Your task to perform on an android device: Open Android settings Image 0: 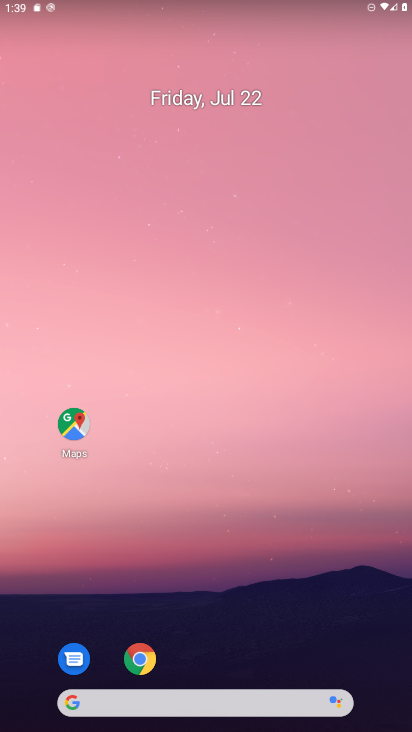
Step 0: drag from (184, 698) to (237, 1)
Your task to perform on an android device: Open Android settings Image 1: 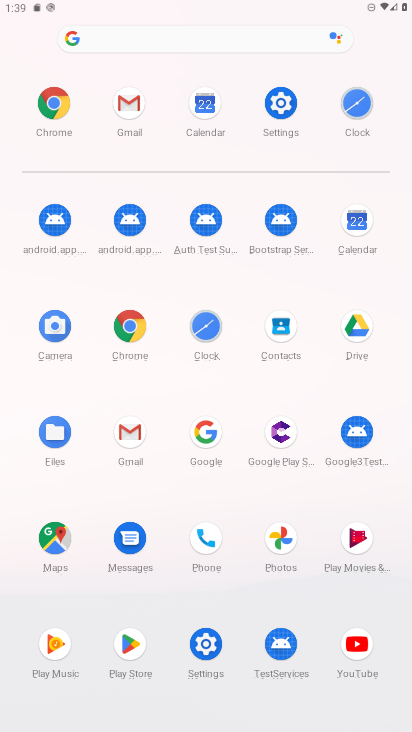
Step 1: click (280, 101)
Your task to perform on an android device: Open Android settings Image 2: 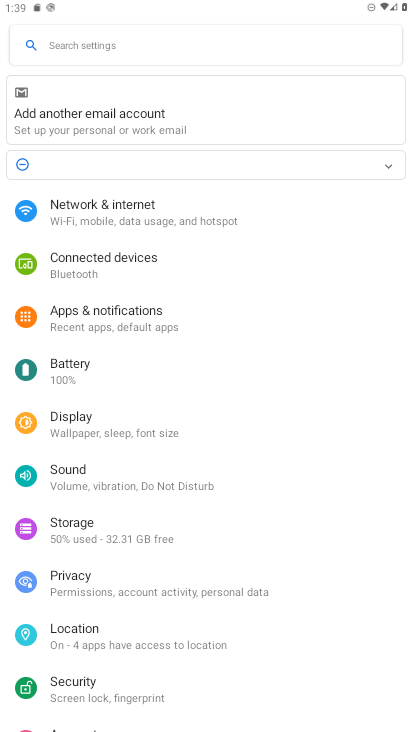
Step 2: task complete